Your task to perform on an android device: Open calendar and show me the first week of next month Image 0: 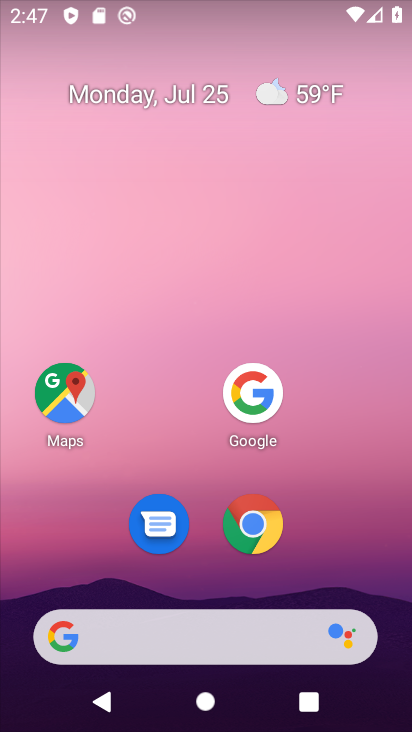
Step 0: press home button
Your task to perform on an android device: Open calendar and show me the first week of next month Image 1: 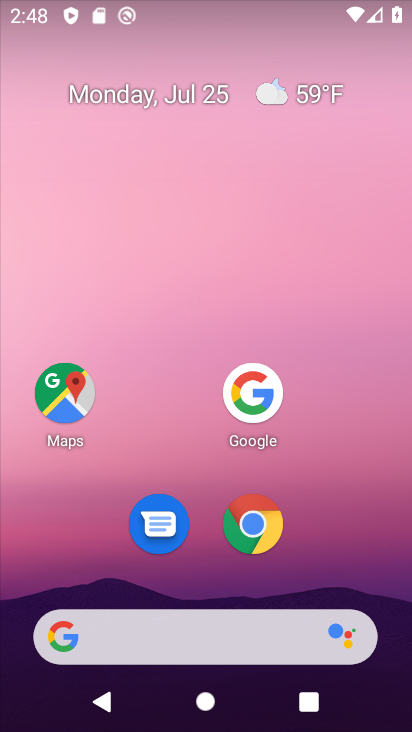
Step 1: drag from (147, 648) to (292, 127)
Your task to perform on an android device: Open calendar and show me the first week of next month Image 2: 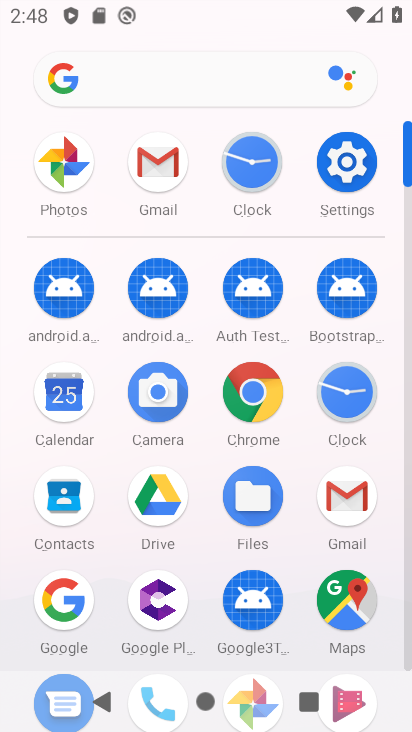
Step 2: click (61, 397)
Your task to perform on an android device: Open calendar and show me the first week of next month Image 3: 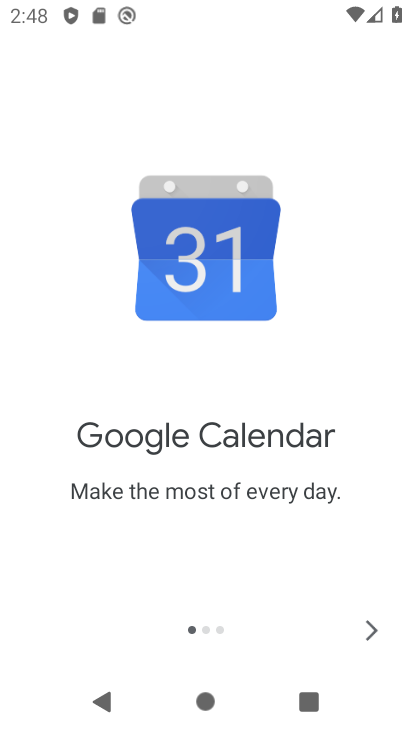
Step 3: click (367, 623)
Your task to perform on an android device: Open calendar and show me the first week of next month Image 4: 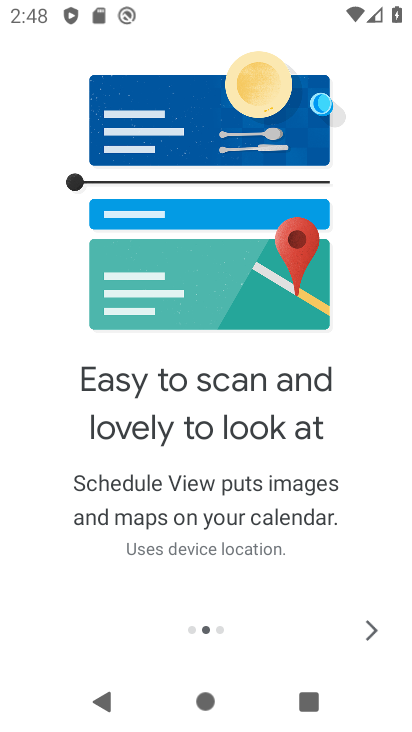
Step 4: click (382, 620)
Your task to perform on an android device: Open calendar and show me the first week of next month Image 5: 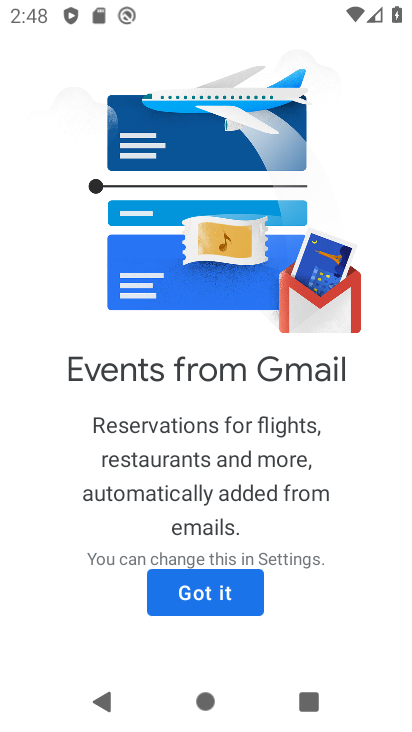
Step 5: click (234, 601)
Your task to perform on an android device: Open calendar and show me the first week of next month Image 6: 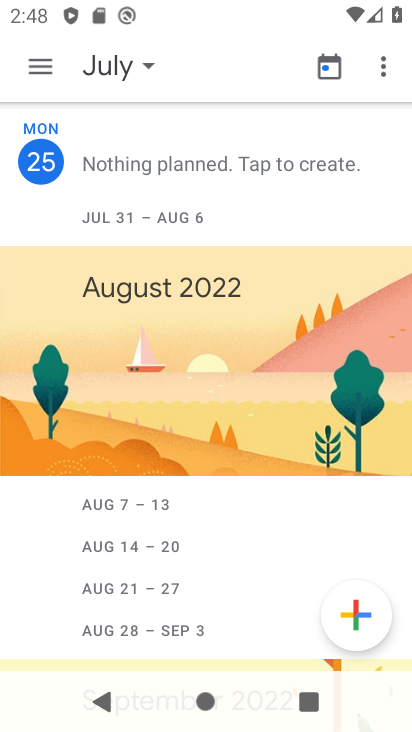
Step 6: click (116, 65)
Your task to perform on an android device: Open calendar and show me the first week of next month Image 7: 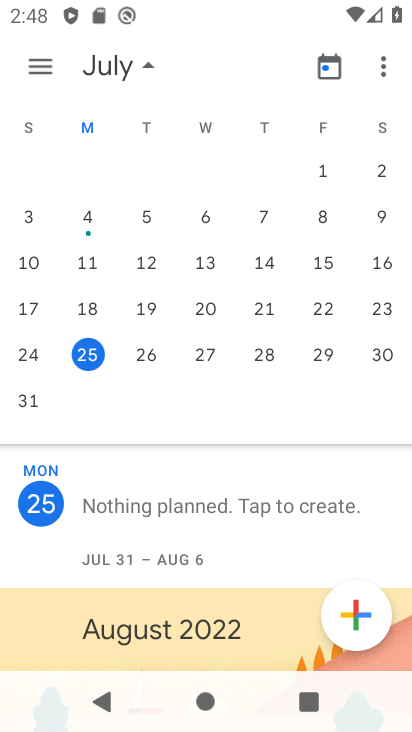
Step 7: drag from (368, 302) to (116, 307)
Your task to perform on an android device: Open calendar and show me the first week of next month Image 8: 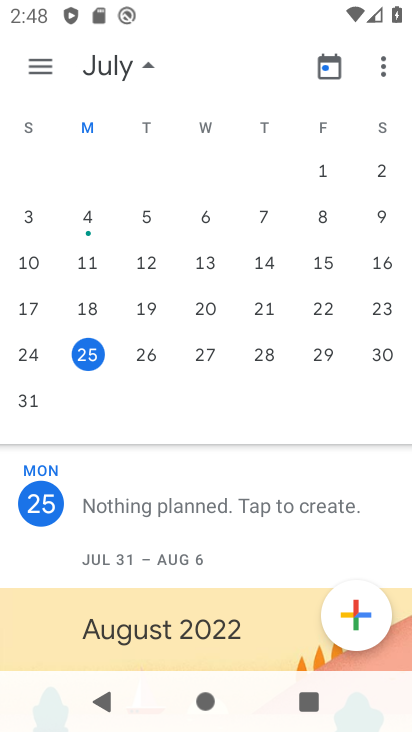
Step 8: drag from (345, 242) to (47, 222)
Your task to perform on an android device: Open calendar and show me the first week of next month Image 9: 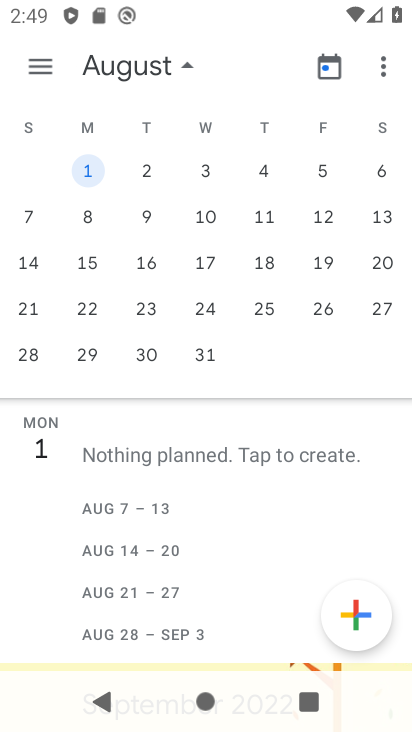
Step 9: click (84, 169)
Your task to perform on an android device: Open calendar and show me the first week of next month Image 10: 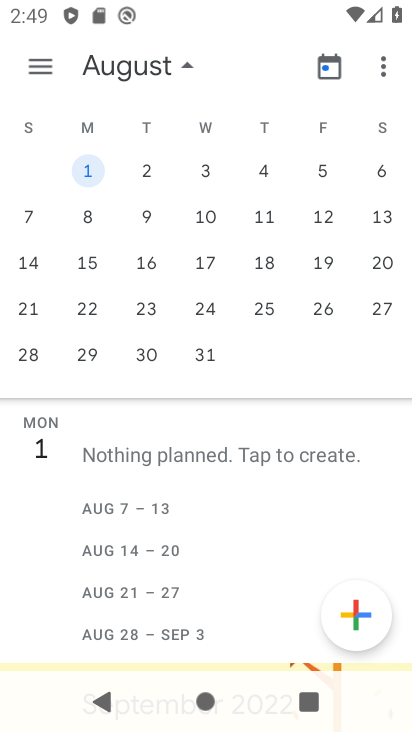
Step 10: click (35, 69)
Your task to perform on an android device: Open calendar and show me the first week of next month Image 11: 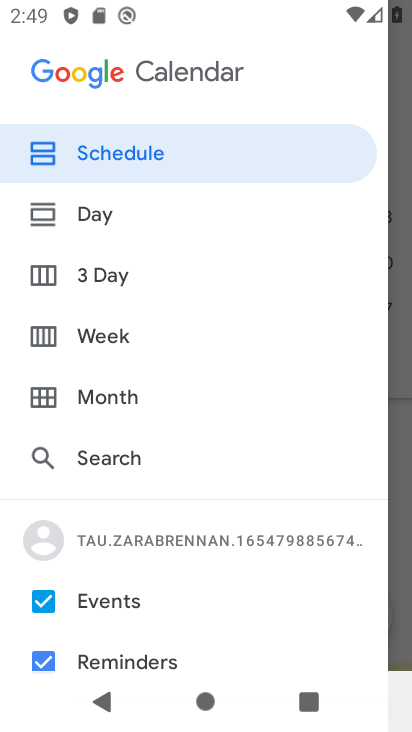
Step 11: click (114, 337)
Your task to perform on an android device: Open calendar and show me the first week of next month Image 12: 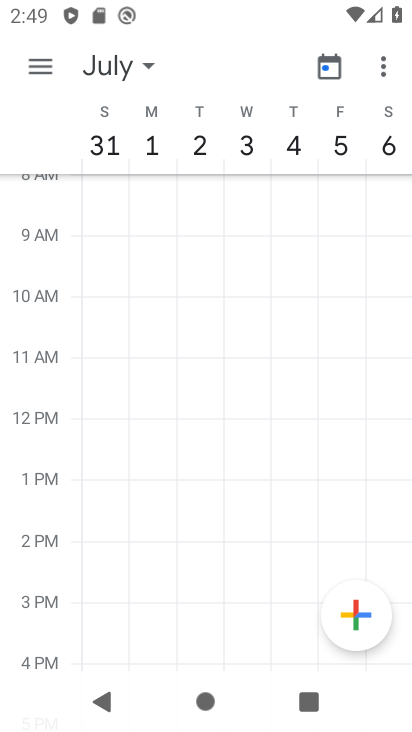
Step 12: task complete